Your task to perform on an android device: Open calendar and show me the first week of next month Image 0: 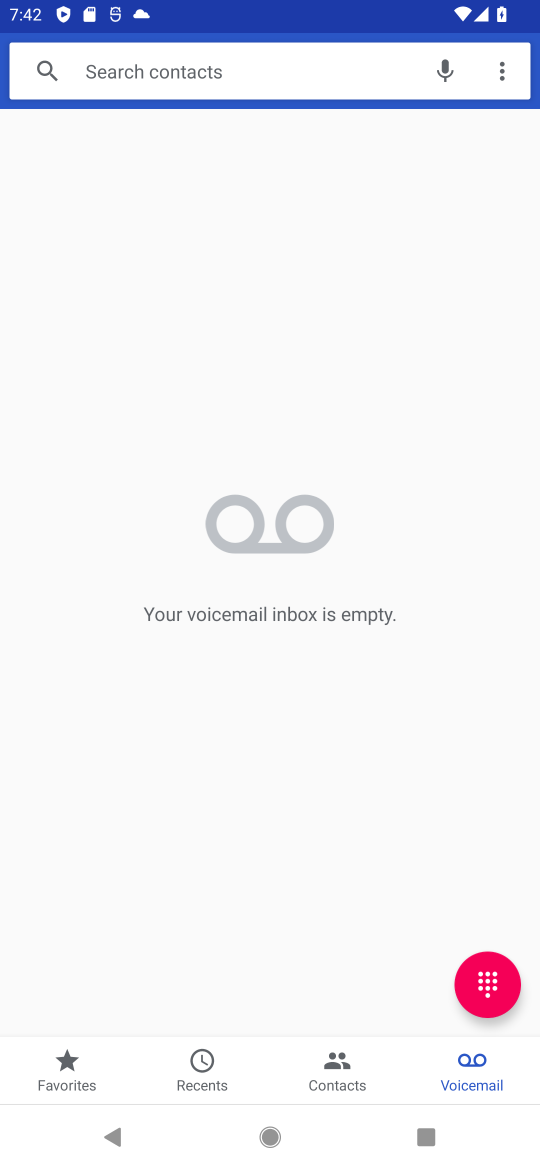
Step 0: press home button
Your task to perform on an android device: Open calendar and show me the first week of next month Image 1: 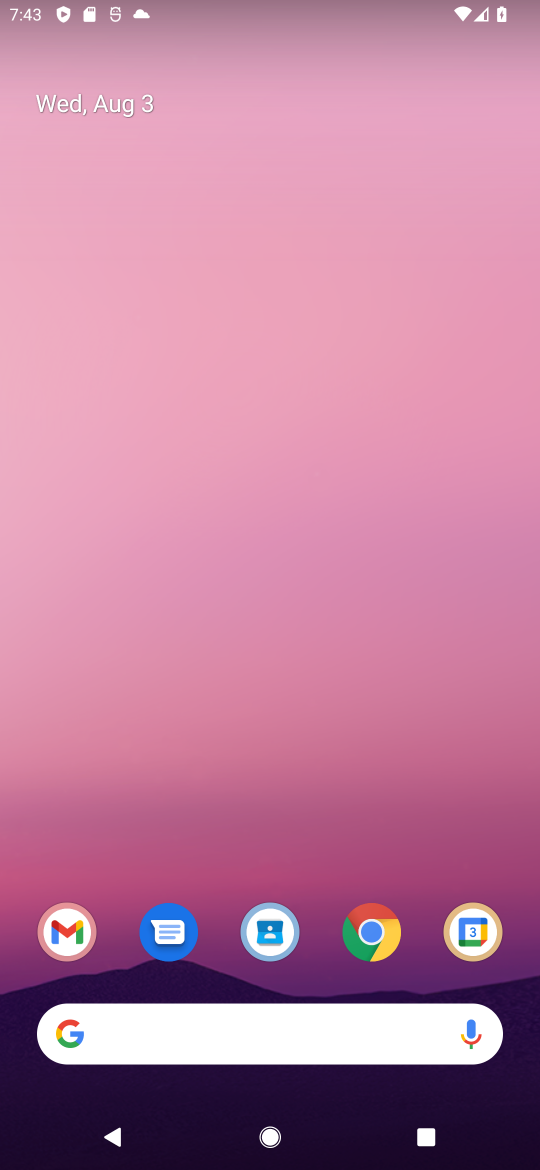
Step 1: drag from (208, 1060) to (375, 67)
Your task to perform on an android device: Open calendar and show me the first week of next month Image 2: 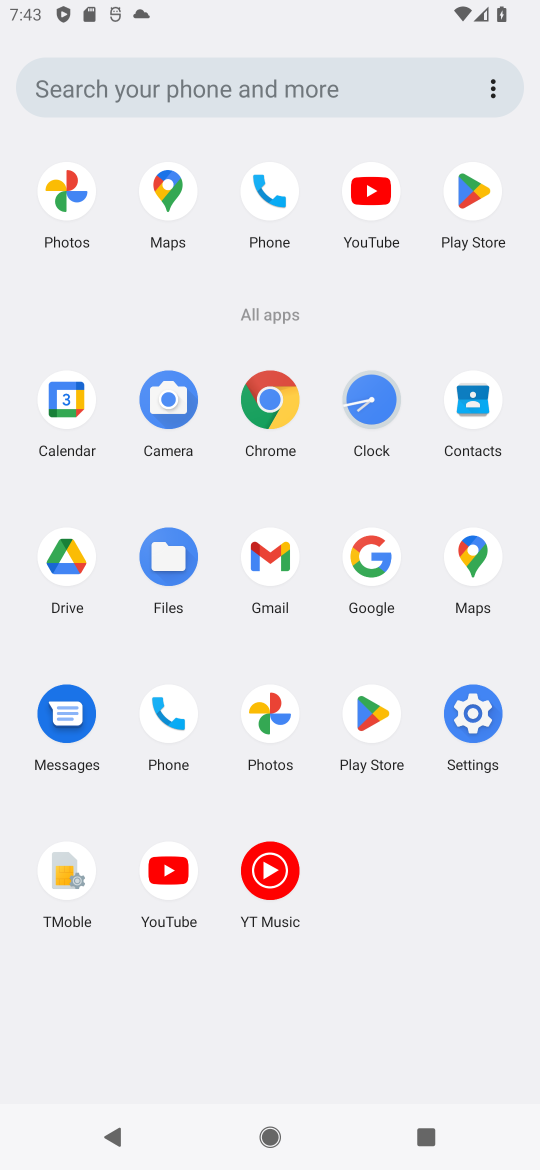
Step 2: click (75, 406)
Your task to perform on an android device: Open calendar and show me the first week of next month Image 3: 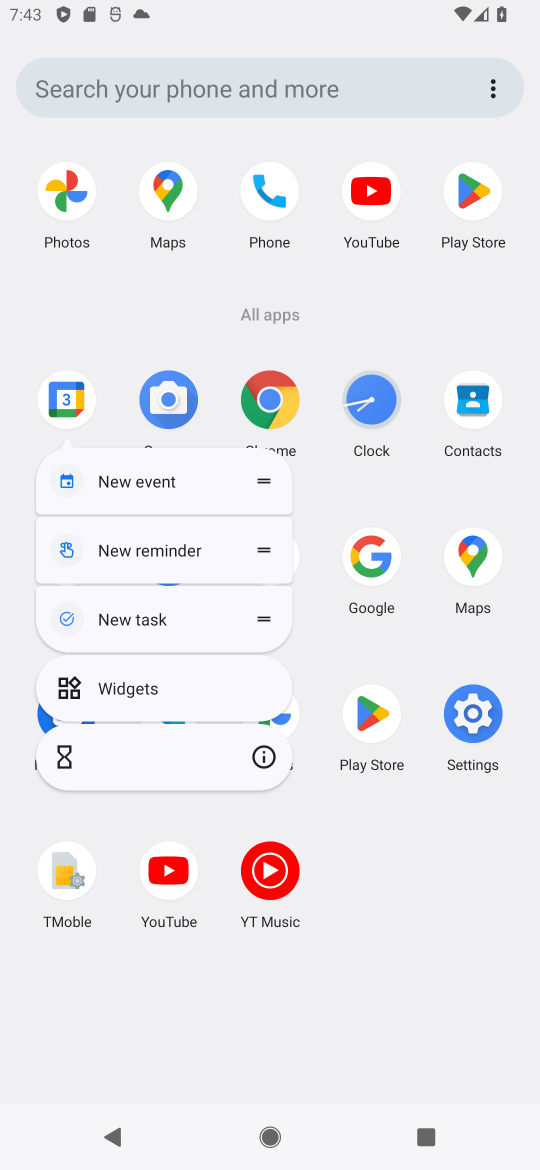
Step 3: click (75, 406)
Your task to perform on an android device: Open calendar and show me the first week of next month Image 4: 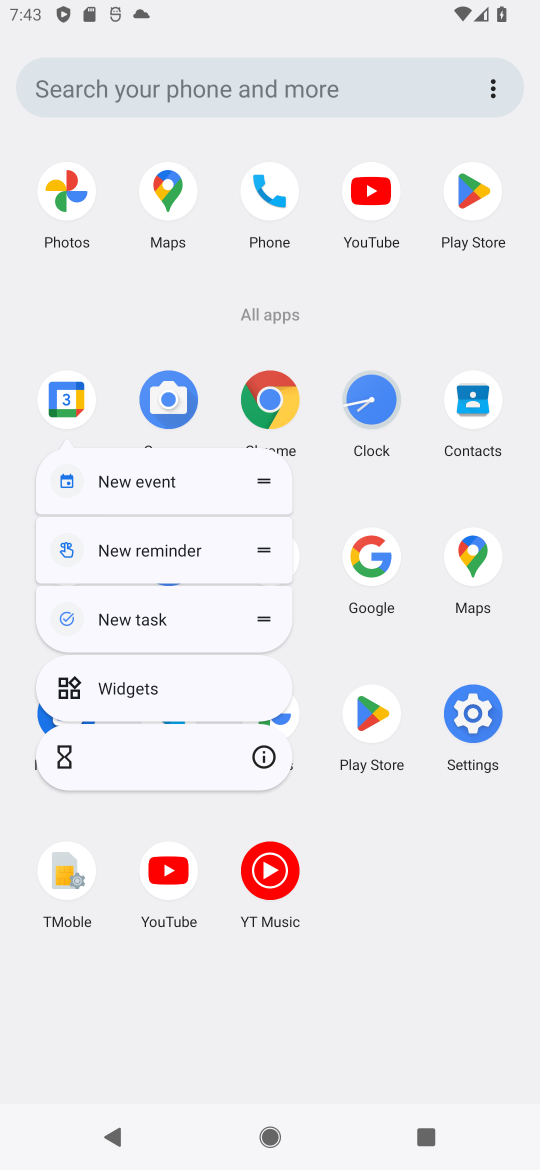
Step 4: click (75, 406)
Your task to perform on an android device: Open calendar and show me the first week of next month Image 5: 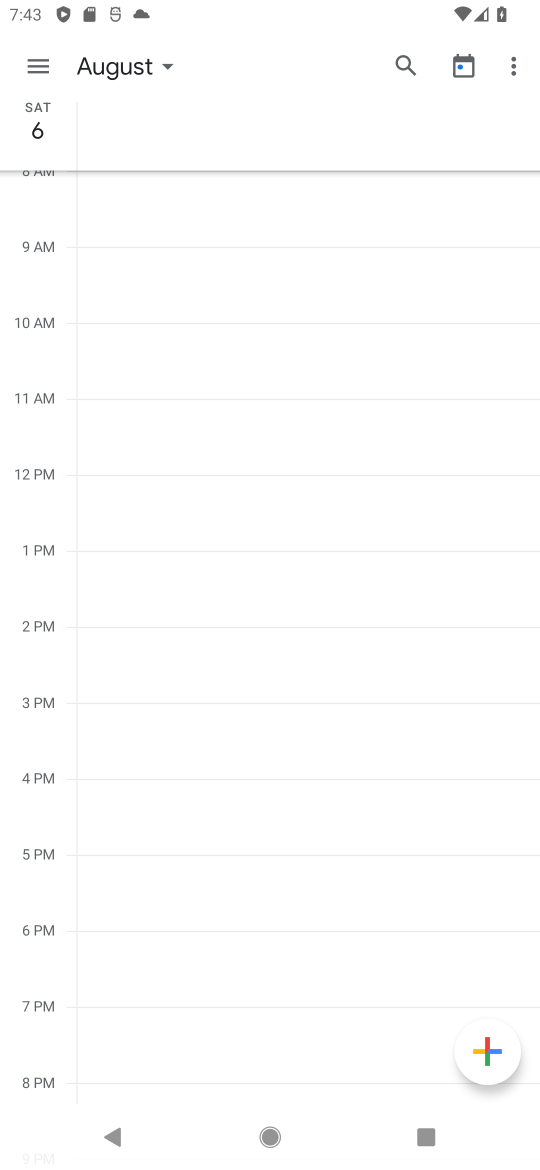
Step 5: click (104, 63)
Your task to perform on an android device: Open calendar and show me the first week of next month Image 6: 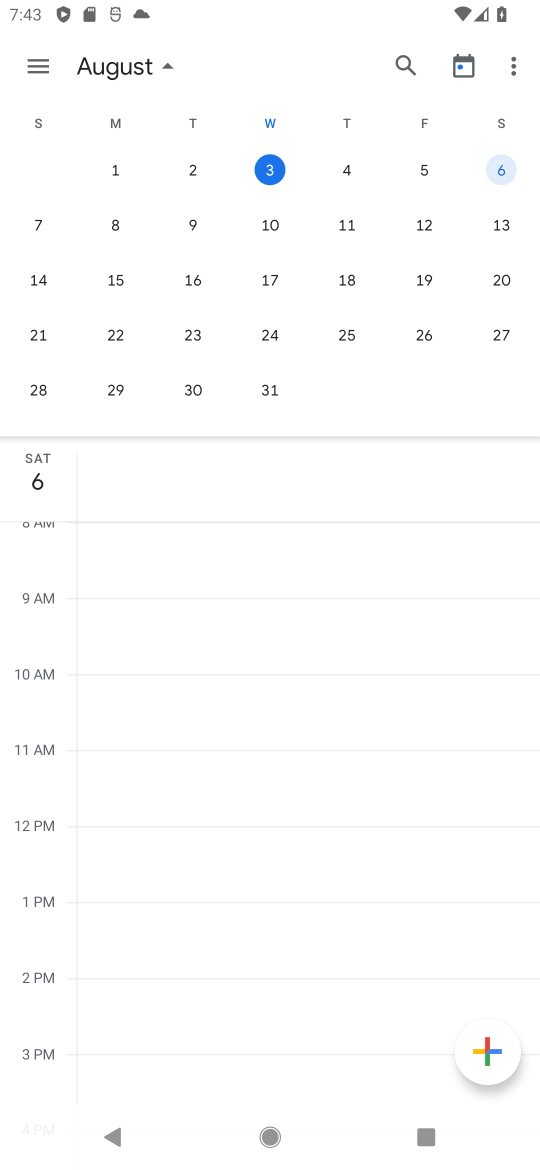
Step 6: task complete